Your task to perform on an android device: Open Chrome and go to settings Image 0: 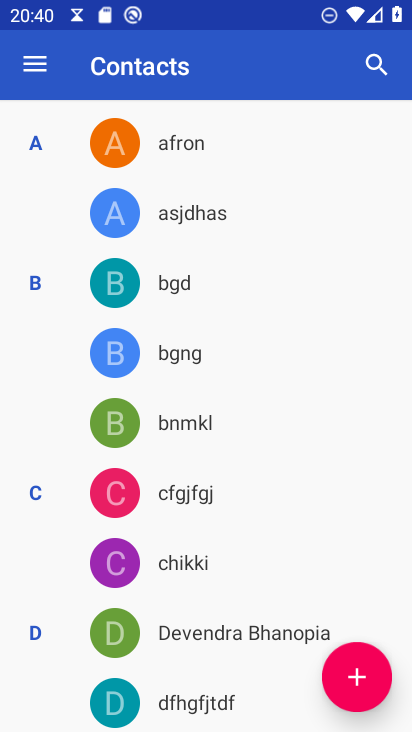
Step 0: press home button
Your task to perform on an android device: Open Chrome and go to settings Image 1: 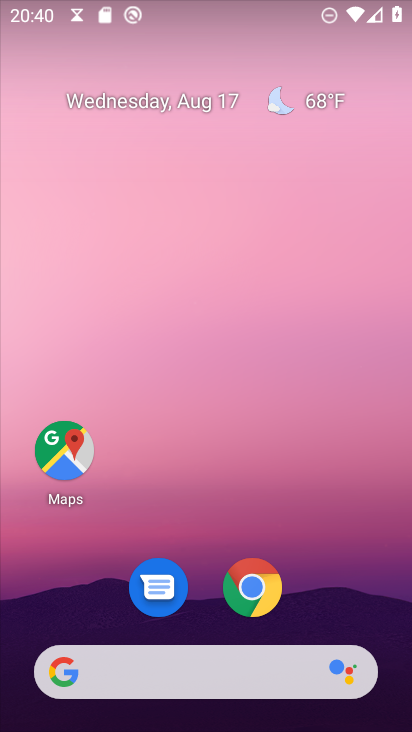
Step 1: click (254, 582)
Your task to perform on an android device: Open Chrome and go to settings Image 2: 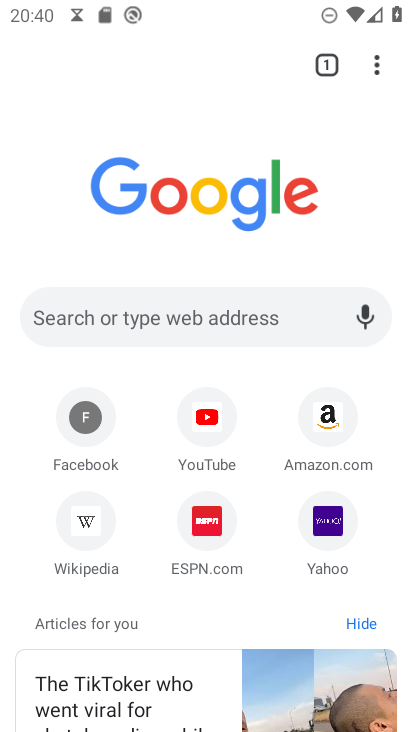
Step 2: click (384, 63)
Your task to perform on an android device: Open Chrome and go to settings Image 3: 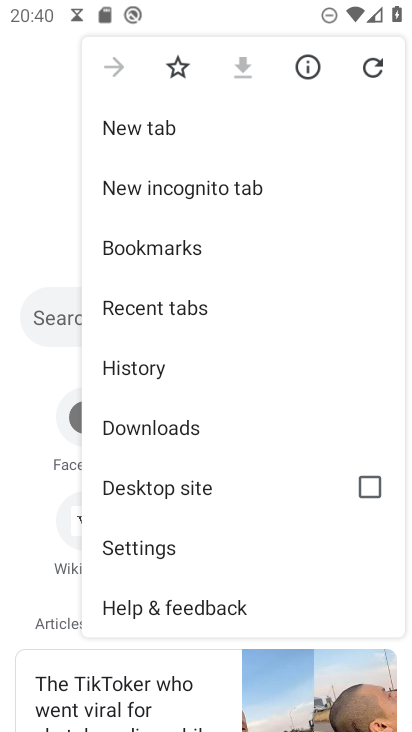
Step 3: click (148, 546)
Your task to perform on an android device: Open Chrome and go to settings Image 4: 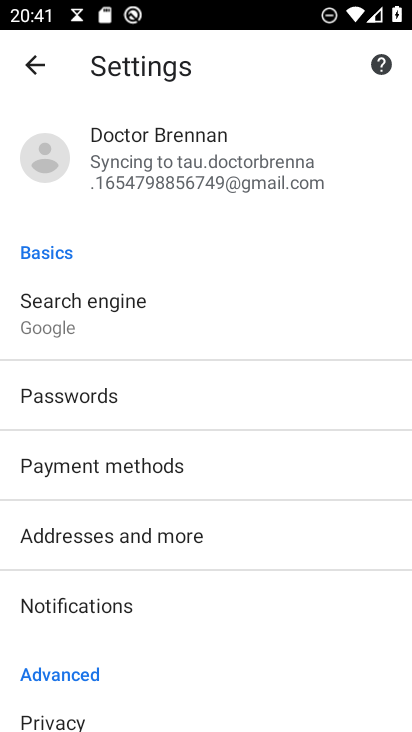
Step 4: task complete